Your task to perform on an android device: Open display settings Image 0: 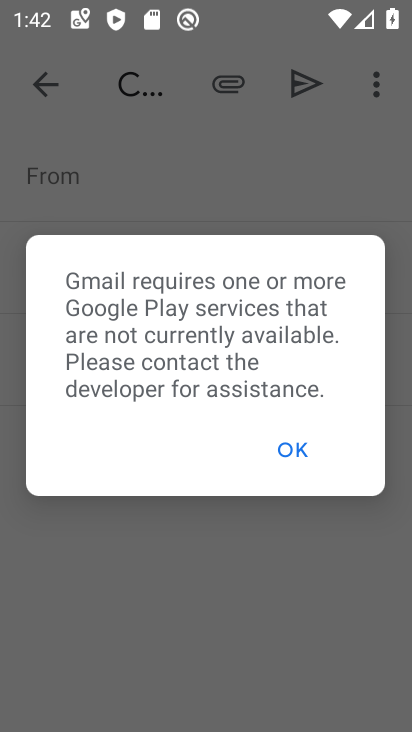
Step 0: press home button
Your task to perform on an android device: Open display settings Image 1: 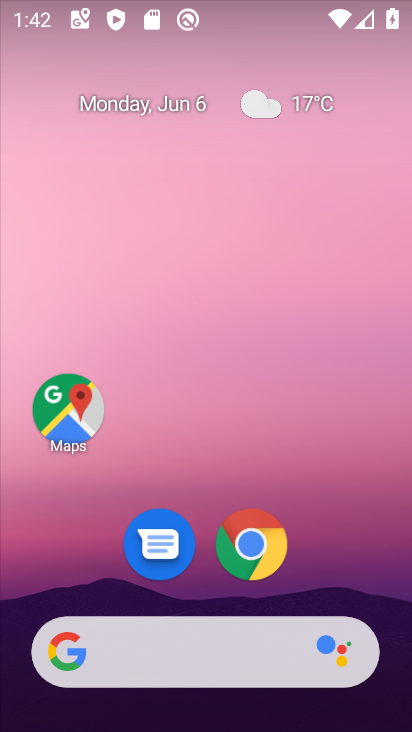
Step 1: drag from (339, 530) to (328, 186)
Your task to perform on an android device: Open display settings Image 2: 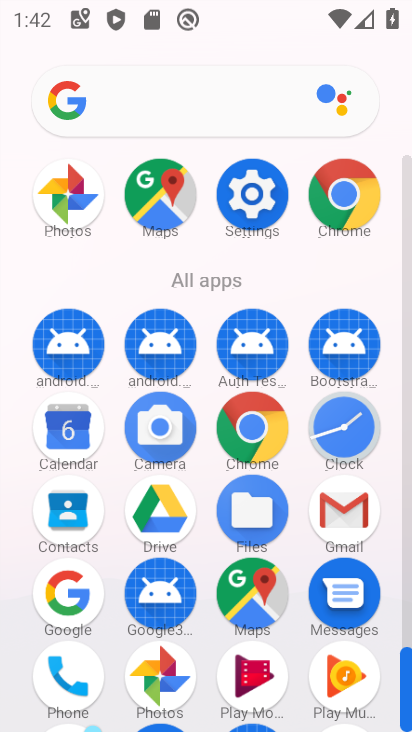
Step 2: click (231, 211)
Your task to perform on an android device: Open display settings Image 3: 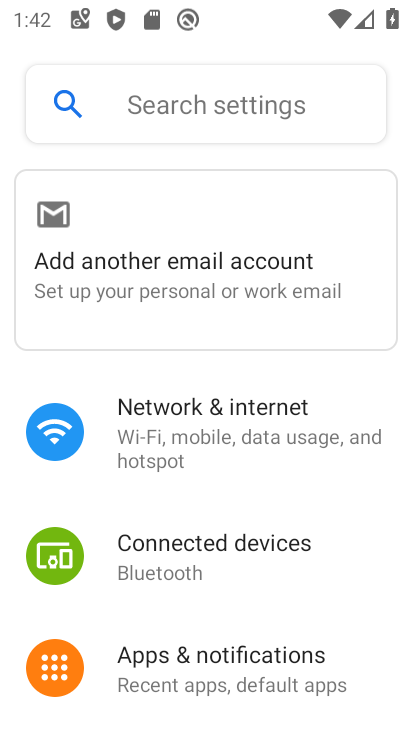
Step 3: drag from (220, 630) to (240, 342)
Your task to perform on an android device: Open display settings Image 4: 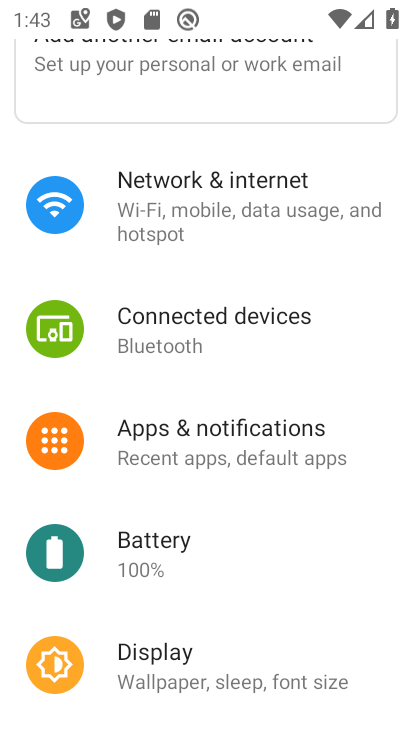
Step 4: click (210, 655)
Your task to perform on an android device: Open display settings Image 5: 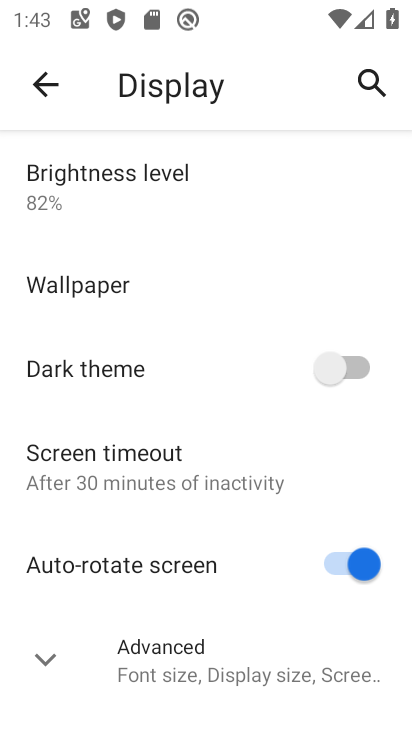
Step 5: drag from (212, 584) to (206, 246)
Your task to perform on an android device: Open display settings Image 6: 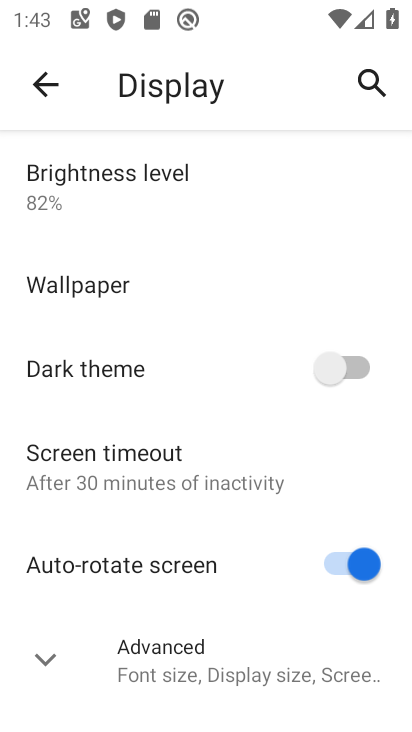
Step 6: press home button
Your task to perform on an android device: Open display settings Image 7: 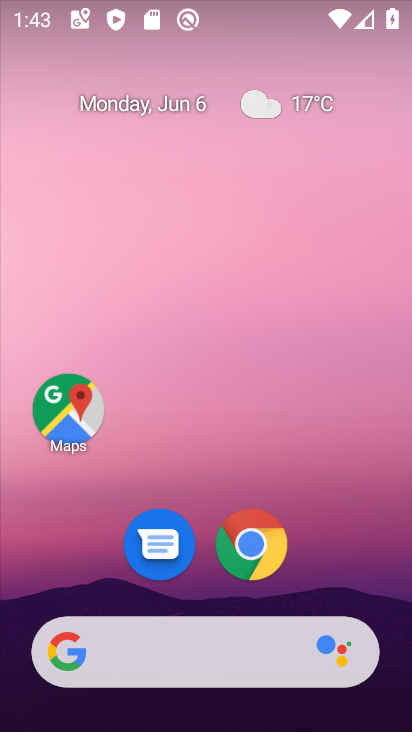
Step 7: drag from (358, 546) to (303, 190)
Your task to perform on an android device: Open display settings Image 8: 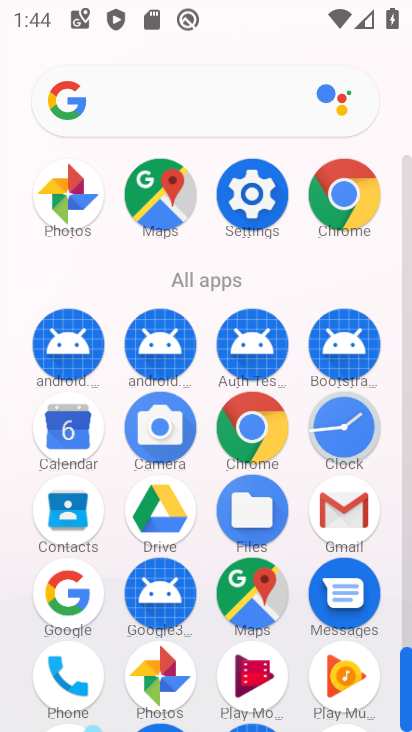
Step 8: click (250, 204)
Your task to perform on an android device: Open display settings Image 9: 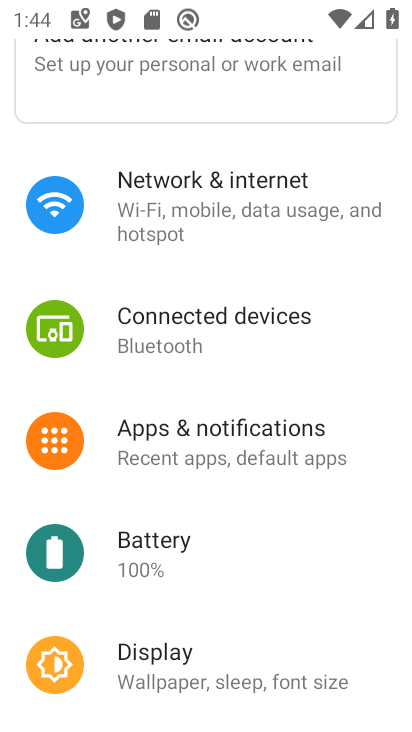
Step 9: click (193, 649)
Your task to perform on an android device: Open display settings Image 10: 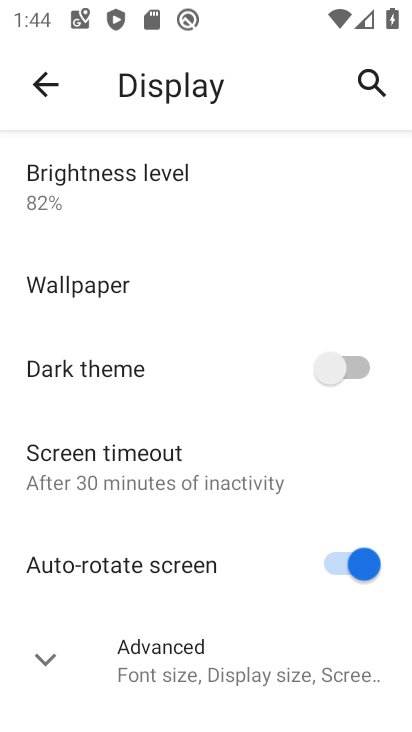
Step 10: task complete